Your task to perform on an android device: Check the weather Image 0: 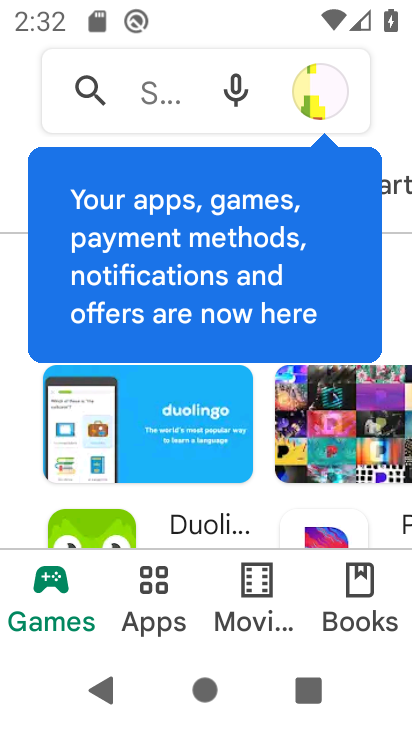
Step 0: press home button
Your task to perform on an android device: Check the weather Image 1: 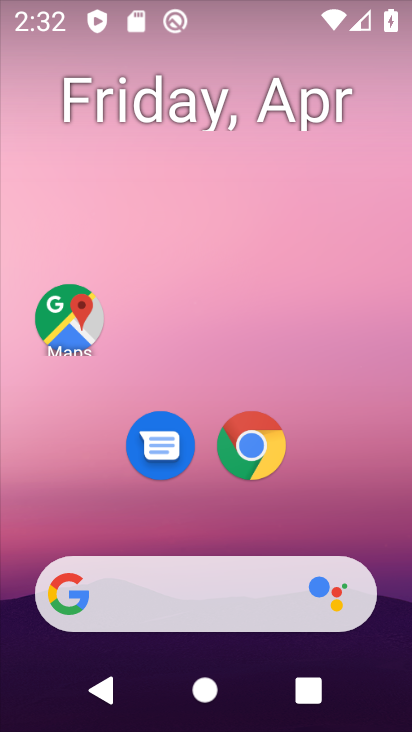
Step 1: drag from (285, 503) to (277, 13)
Your task to perform on an android device: Check the weather Image 2: 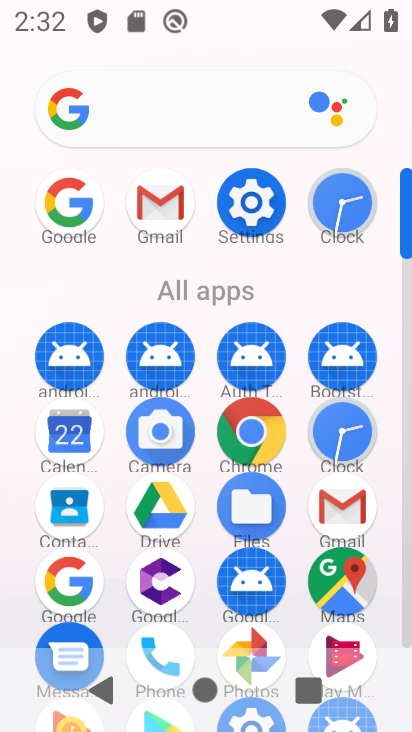
Step 2: click (73, 201)
Your task to perform on an android device: Check the weather Image 3: 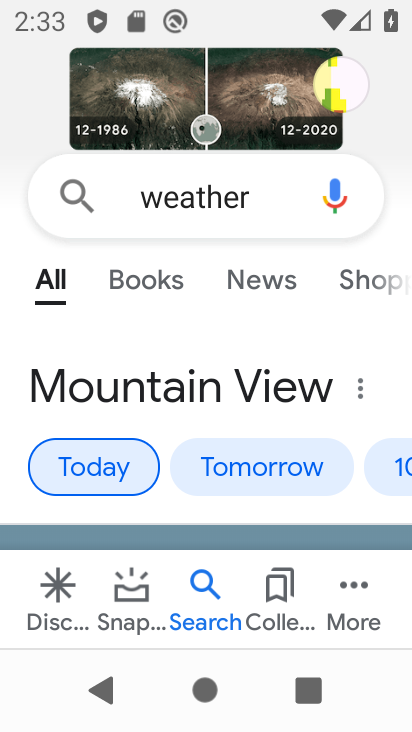
Step 3: task complete